Your task to perform on an android device: open the mobile data screen to see how much data has been used Image 0: 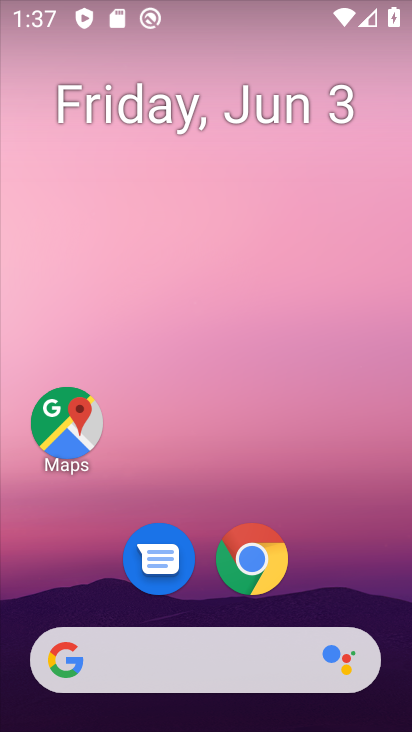
Step 0: drag from (355, 13) to (296, 553)
Your task to perform on an android device: open the mobile data screen to see how much data has been used Image 1: 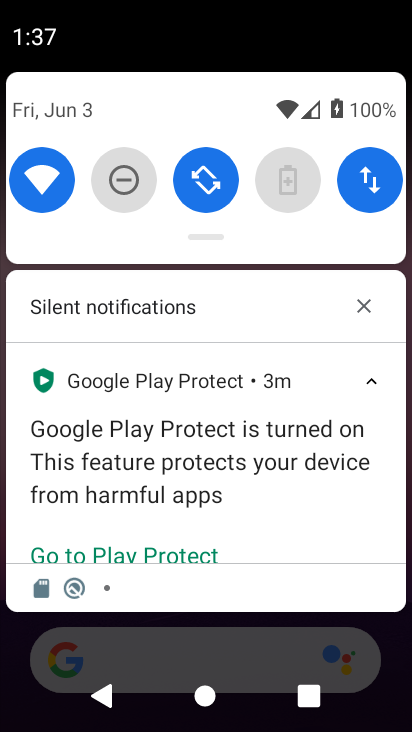
Step 1: click (371, 179)
Your task to perform on an android device: open the mobile data screen to see how much data has been used Image 2: 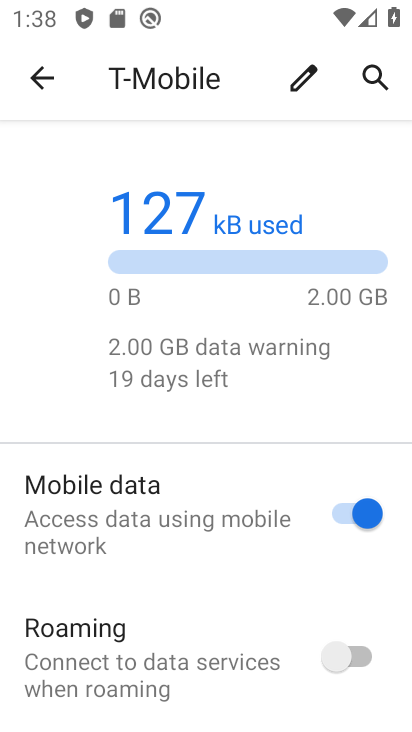
Step 2: task complete